Your task to perform on an android device: create a new album in the google photos Image 0: 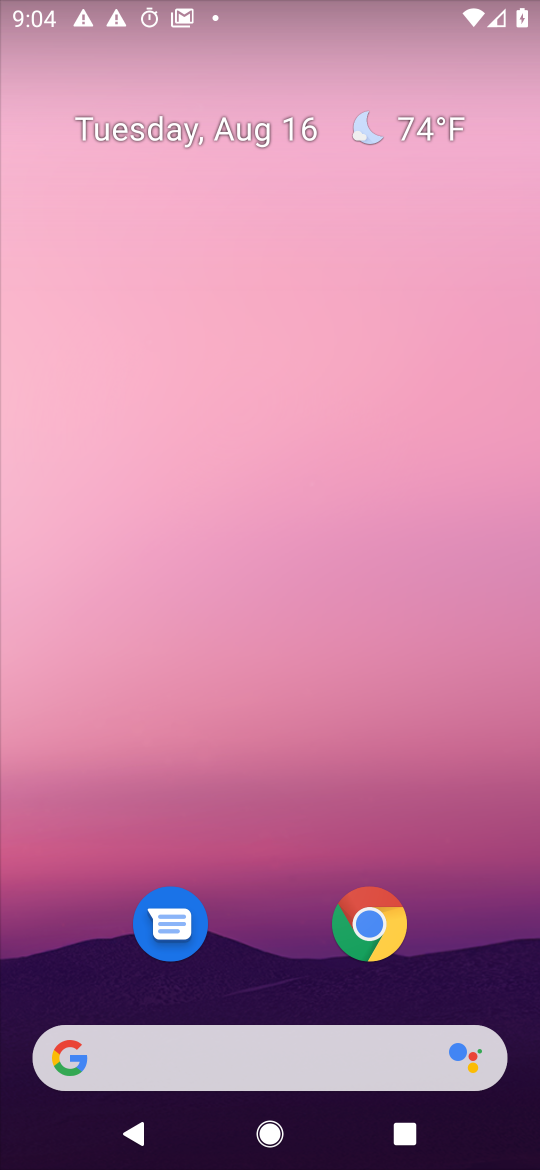
Step 0: drag from (263, 1015) to (384, 28)
Your task to perform on an android device: create a new album in the google photos Image 1: 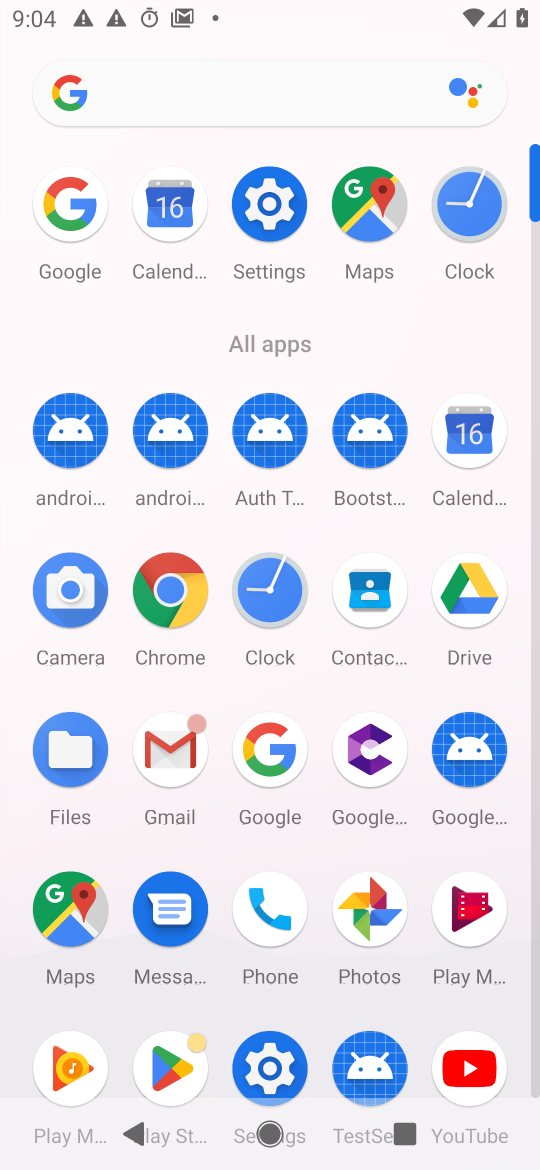
Step 1: click (372, 921)
Your task to perform on an android device: create a new album in the google photos Image 2: 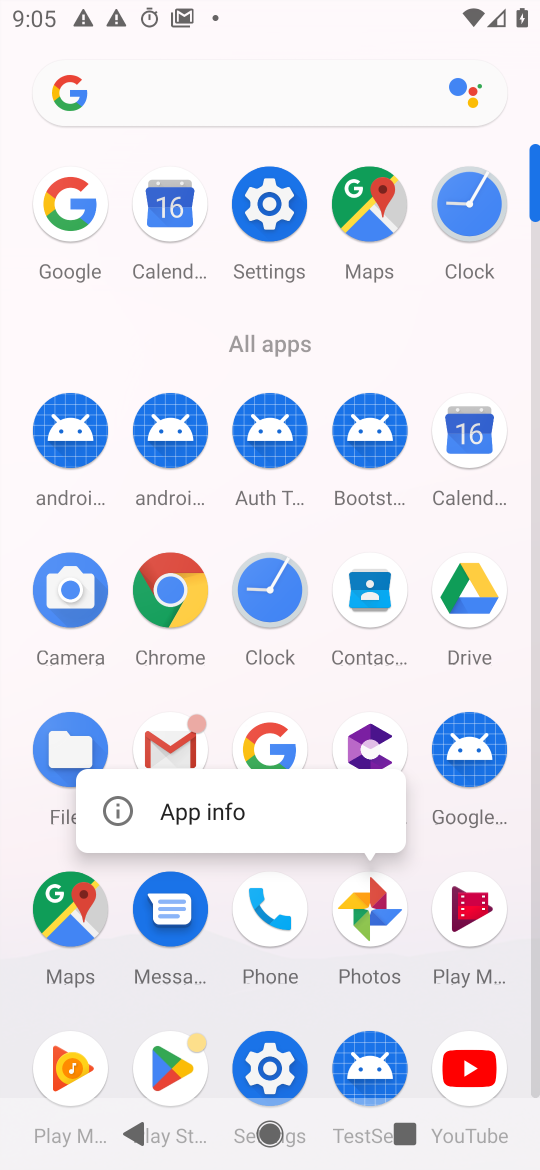
Step 2: click (380, 905)
Your task to perform on an android device: create a new album in the google photos Image 3: 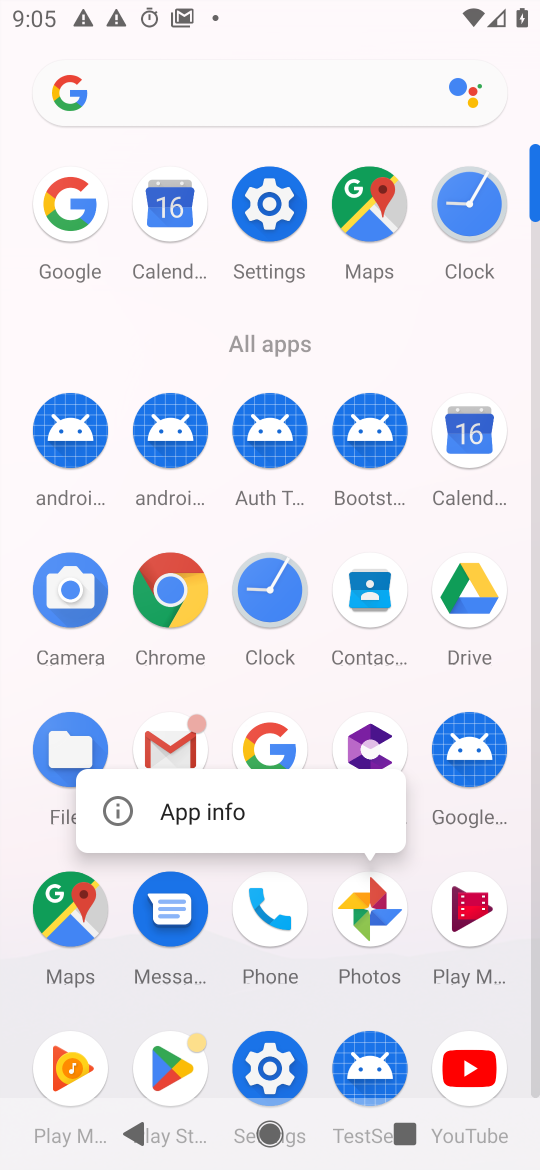
Step 3: click (363, 920)
Your task to perform on an android device: create a new album in the google photos Image 4: 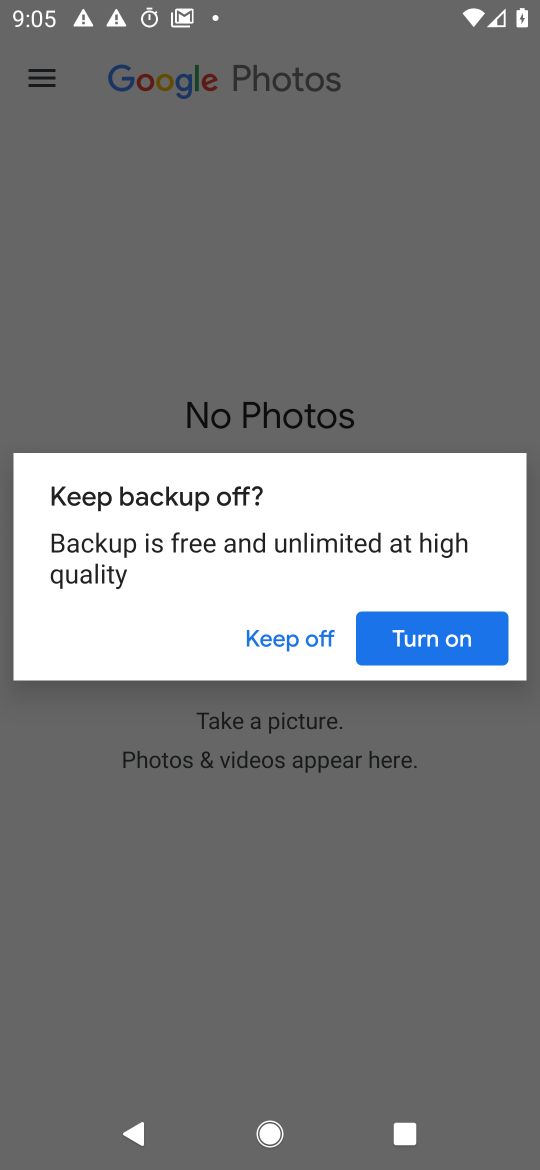
Step 4: click (274, 633)
Your task to perform on an android device: create a new album in the google photos Image 5: 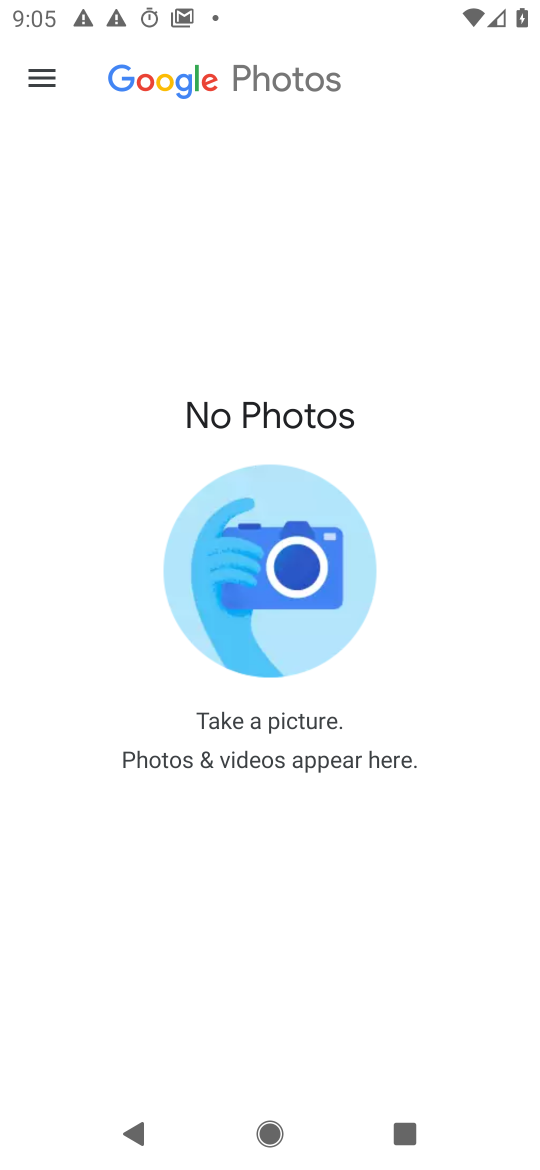
Step 5: task complete